Your task to perform on an android device: Go to Yahoo.com Image 0: 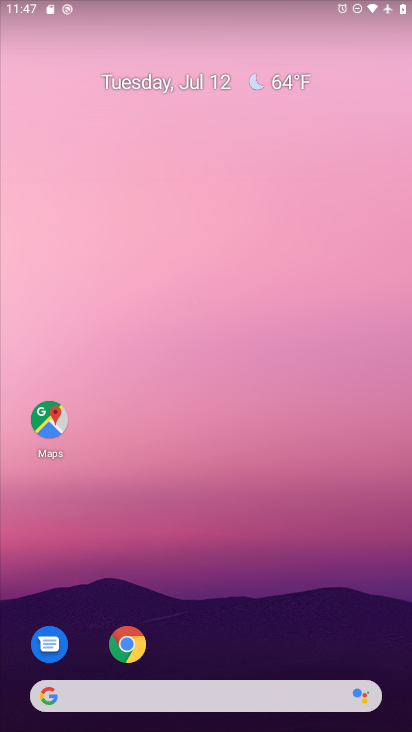
Step 0: drag from (275, 656) to (256, 214)
Your task to perform on an android device: Go to Yahoo.com Image 1: 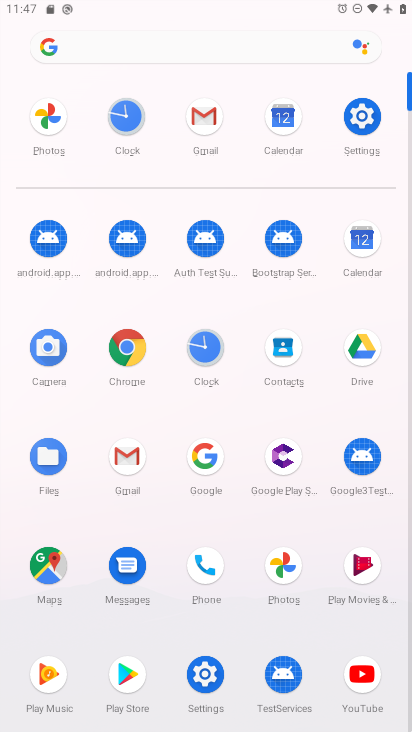
Step 1: click (127, 372)
Your task to perform on an android device: Go to Yahoo.com Image 2: 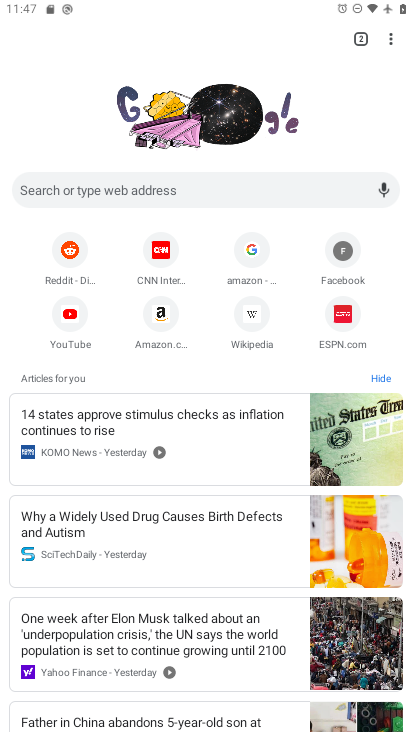
Step 2: click (207, 186)
Your task to perform on an android device: Go to Yahoo.com Image 3: 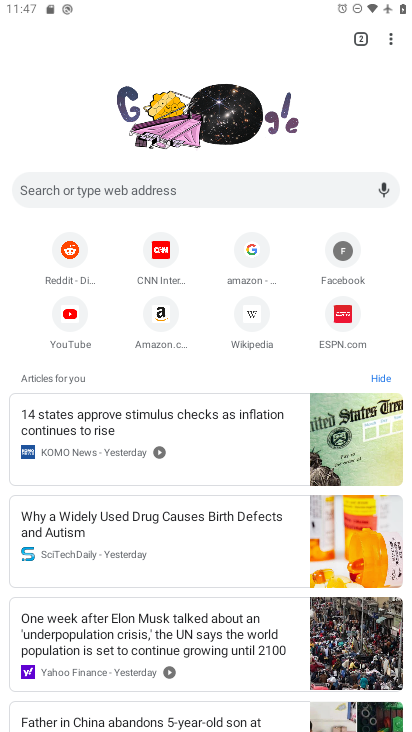
Step 3: click (207, 186)
Your task to perform on an android device: Go to Yahoo.com Image 4: 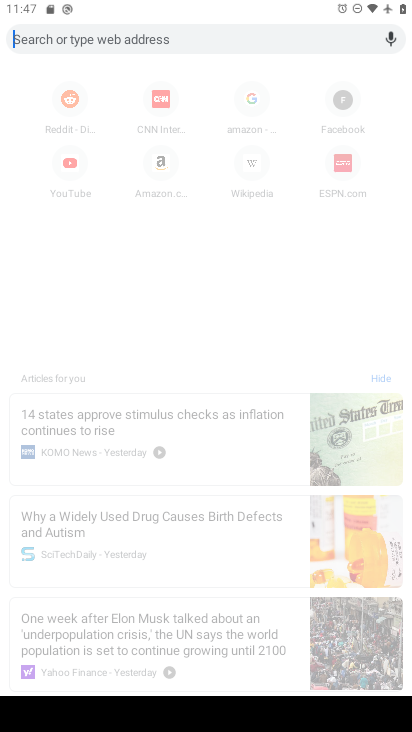
Step 4: type "YAHOO.COM"
Your task to perform on an android device: Go to Yahoo.com Image 5: 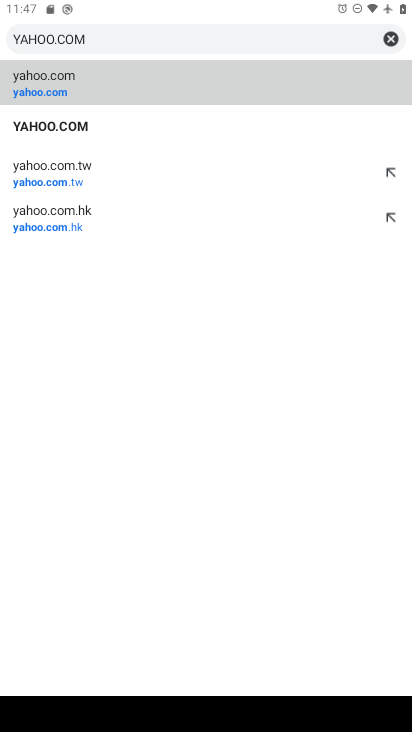
Step 5: click (199, 139)
Your task to perform on an android device: Go to Yahoo.com Image 6: 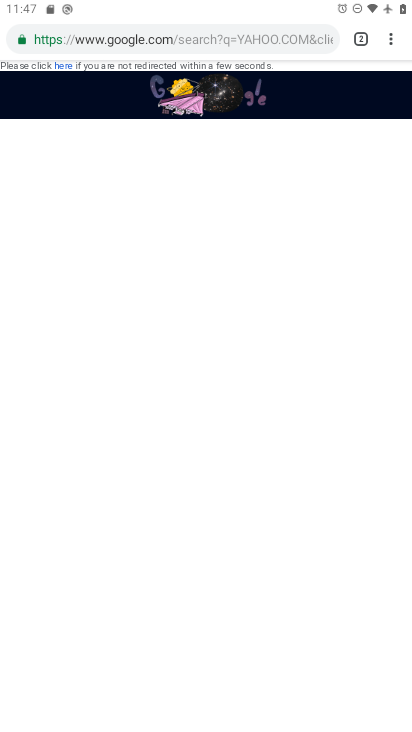
Step 6: task complete